Your task to perform on an android device: Search for usb-c on costco.com, select the first entry, add it to the cart, then select checkout. Image 0: 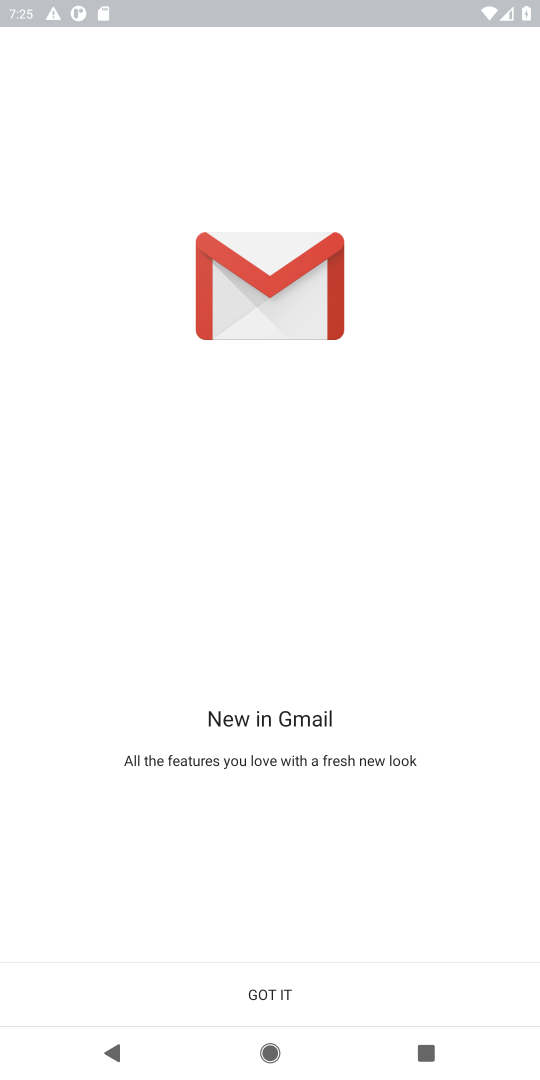
Step 0: press home button
Your task to perform on an android device: Search for usb-c on costco.com, select the first entry, add it to the cart, then select checkout. Image 1: 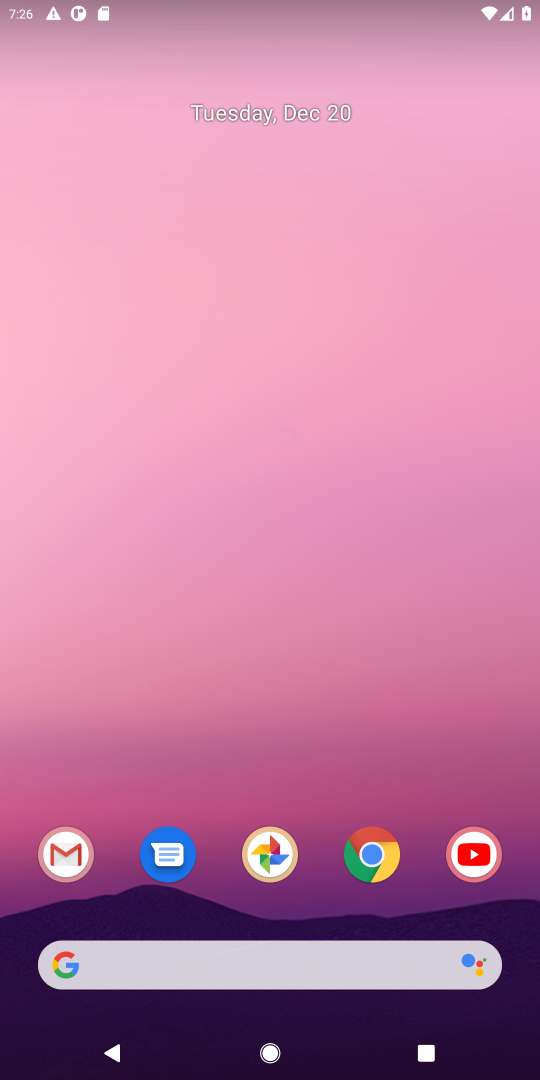
Step 1: click (378, 870)
Your task to perform on an android device: Search for usb-c on costco.com, select the first entry, add it to the cart, then select checkout. Image 2: 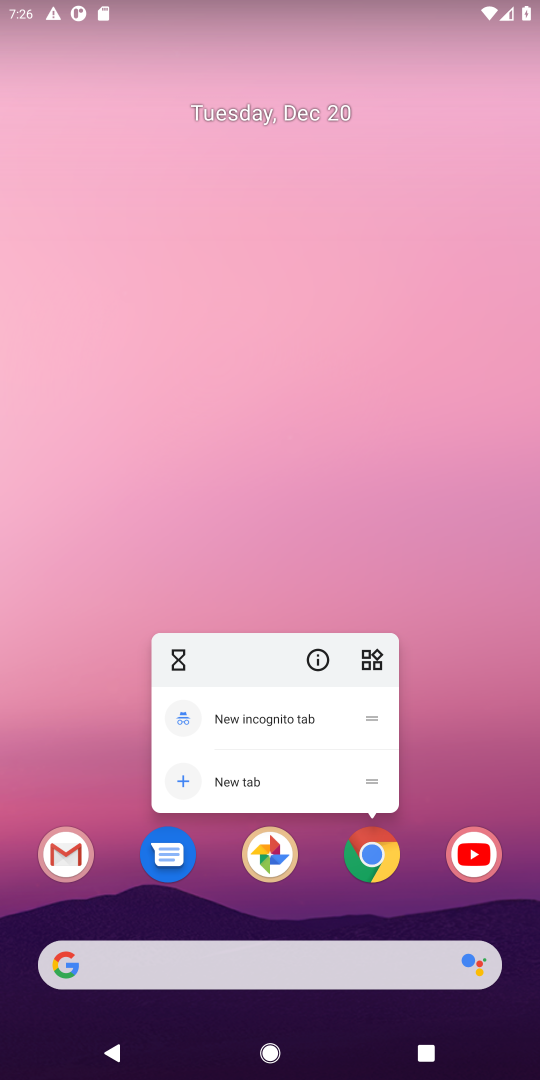
Step 2: click (372, 854)
Your task to perform on an android device: Search for usb-c on costco.com, select the first entry, add it to the cart, then select checkout. Image 3: 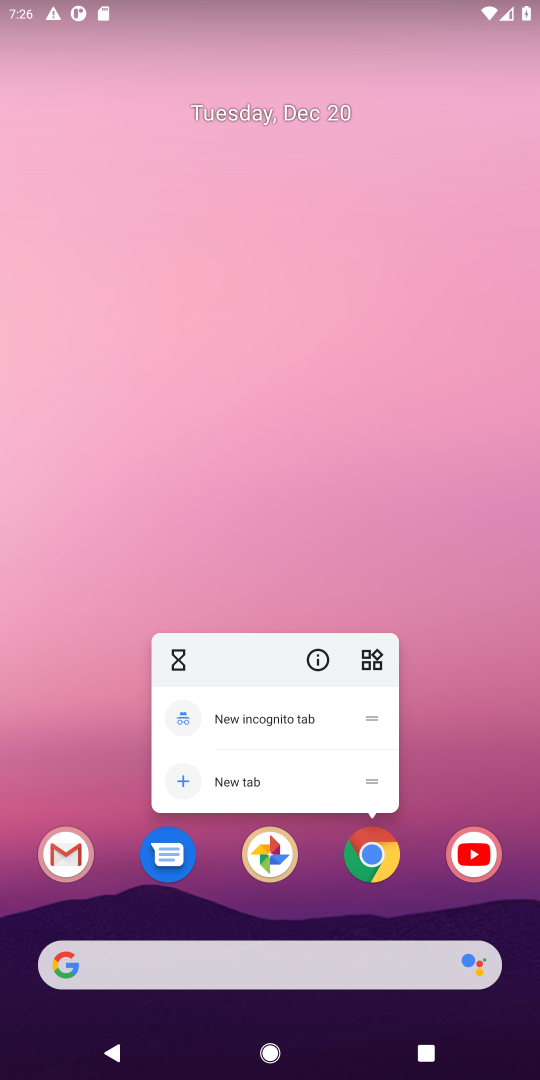
Step 3: click (377, 862)
Your task to perform on an android device: Search for usb-c on costco.com, select the first entry, add it to the cart, then select checkout. Image 4: 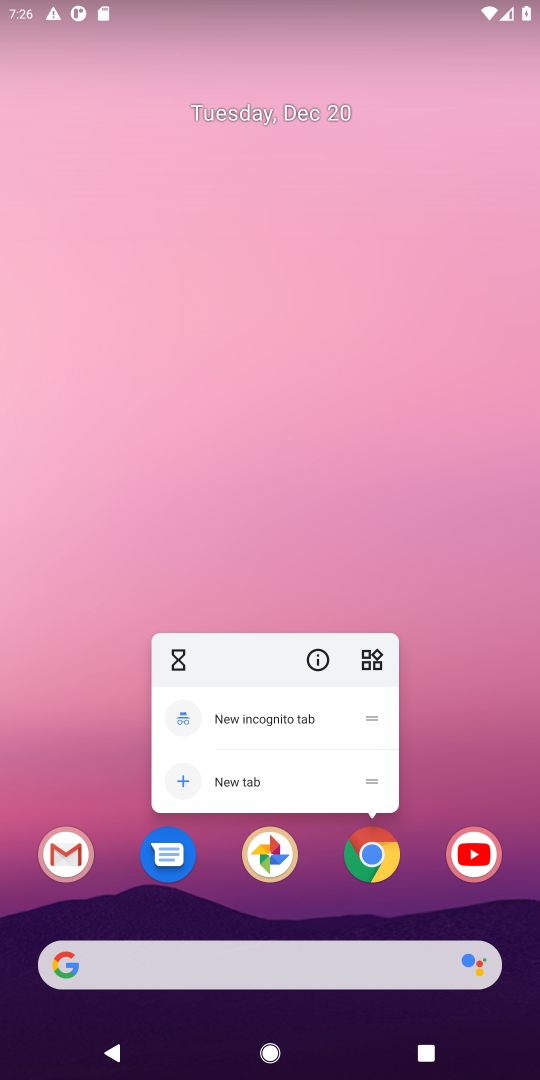
Step 4: click (377, 862)
Your task to perform on an android device: Search for usb-c on costco.com, select the first entry, add it to the cart, then select checkout. Image 5: 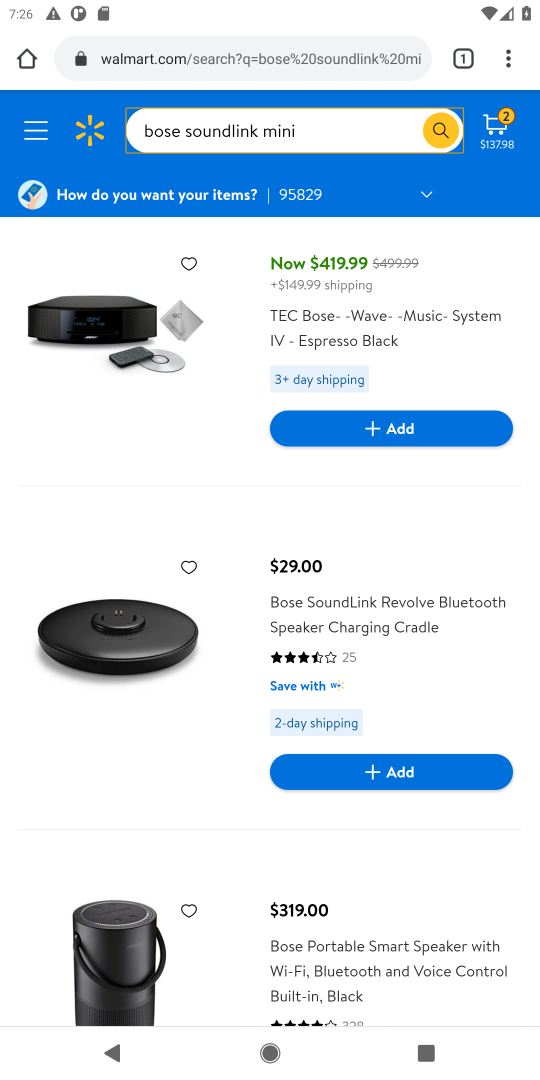
Step 5: click (185, 62)
Your task to perform on an android device: Search for usb-c on costco.com, select the first entry, add it to the cart, then select checkout. Image 6: 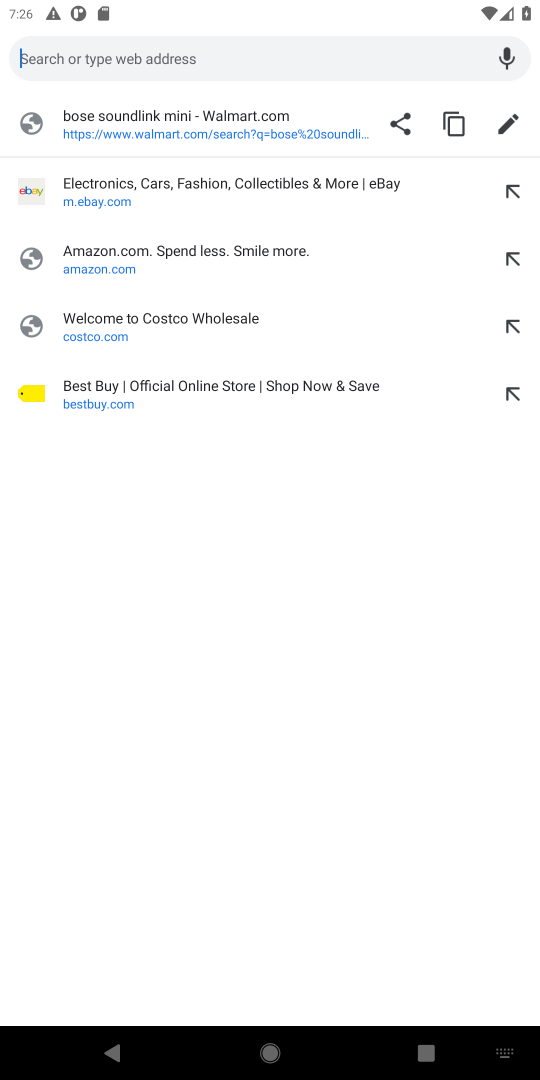
Step 6: click (86, 328)
Your task to perform on an android device: Search for usb-c on costco.com, select the first entry, add it to the cart, then select checkout. Image 7: 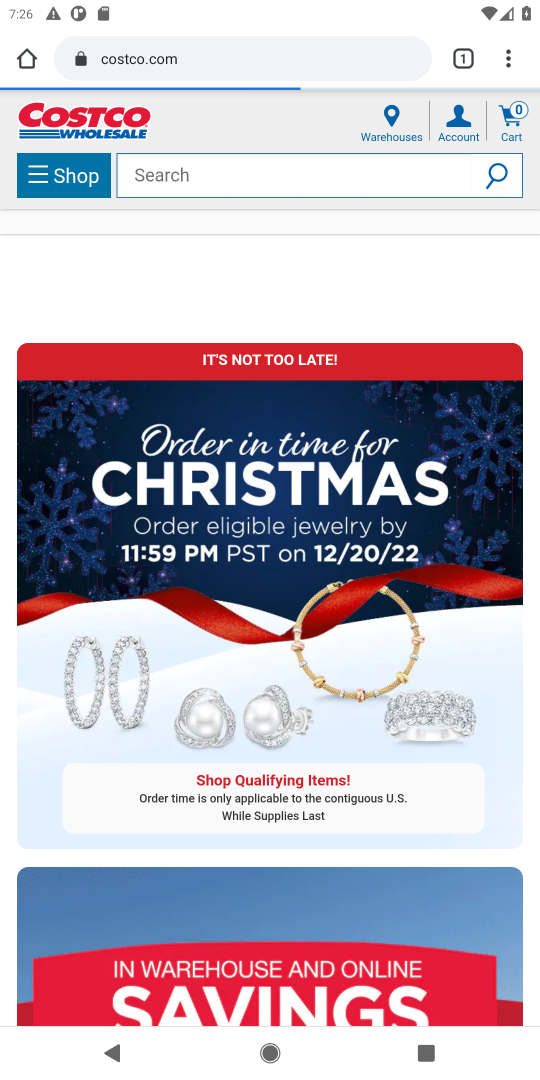
Step 7: click (181, 181)
Your task to perform on an android device: Search for usb-c on costco.com, select the first entry, add it to the cart, then select checkout. Image 8: 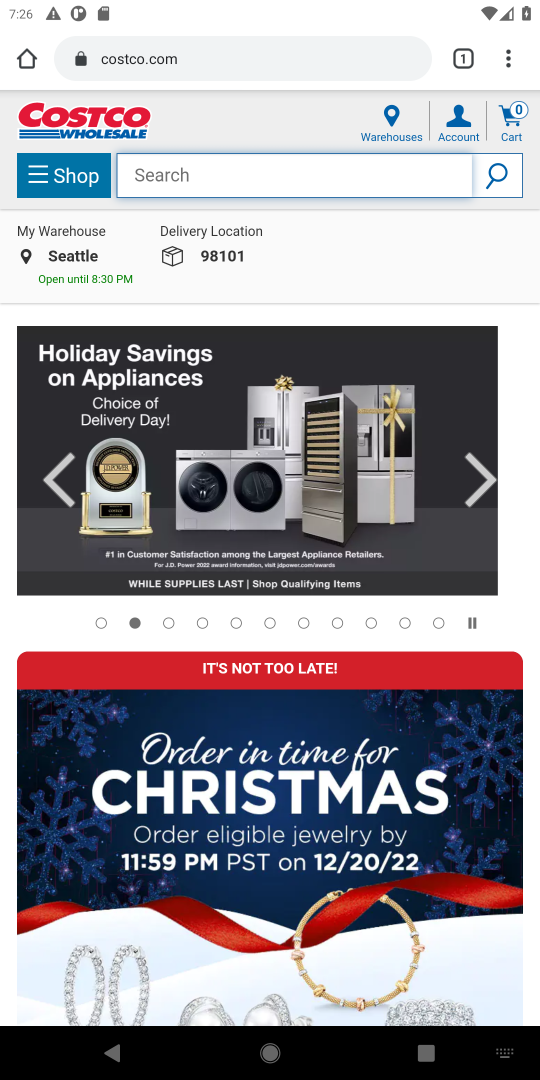
Step 8: type "usb-c"
Your task to perform on an android device: Search for usb-c on costco.com, select the first entry, add it to the cart, then select checkout. Image 9: 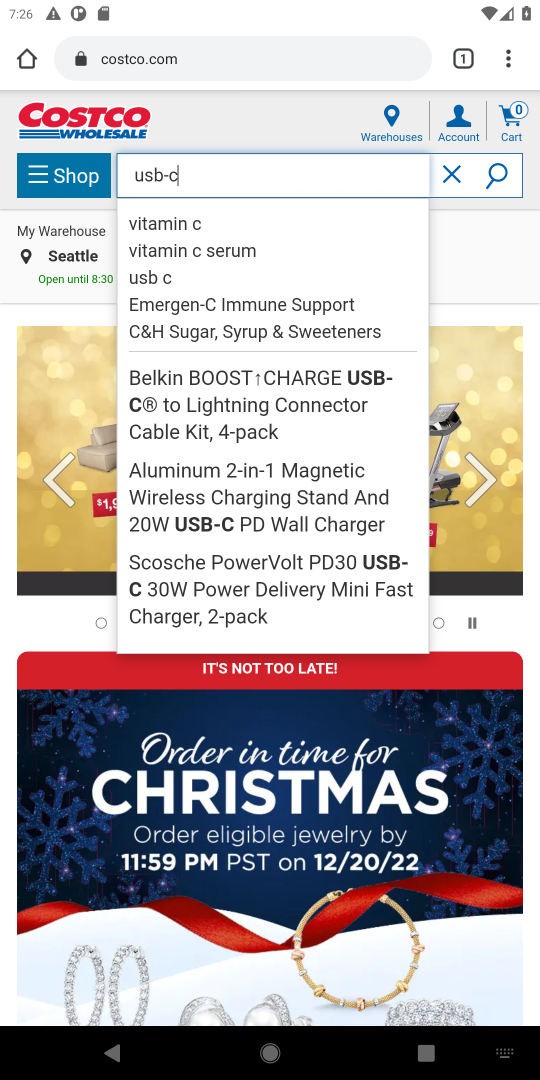
Step 9: click (502, 183)
Your task to perform on an android device: Search for usb-c on costco.com, select the first entry, add it to the cart, then select checkout. Image 10: 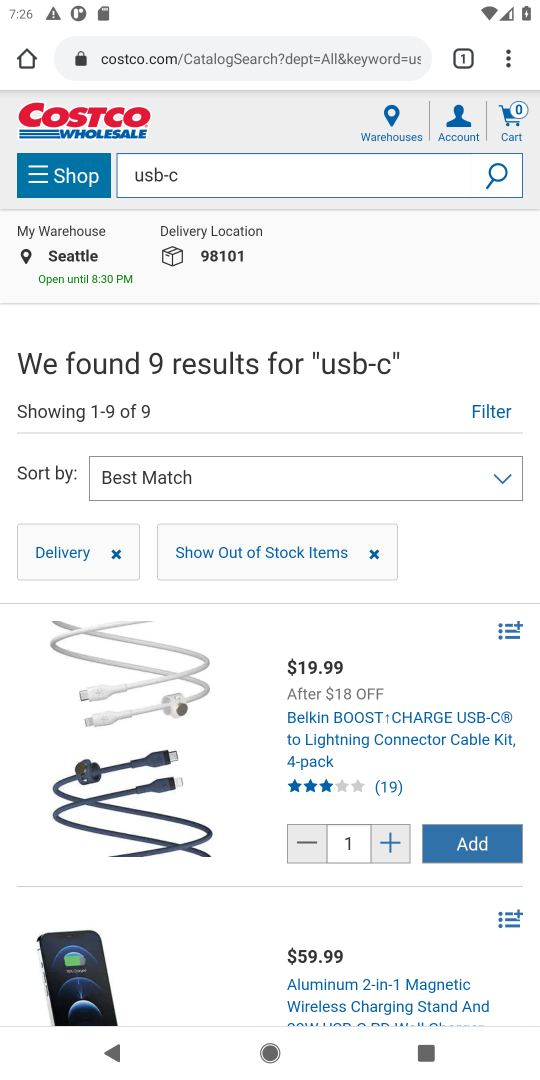
Step 10: drag from (169, 677) to (169, 437)
Your task to perform on an android device: Search for usb-c on costco.com, select the first entry, add it to the cart, then select checkout. Image 11: 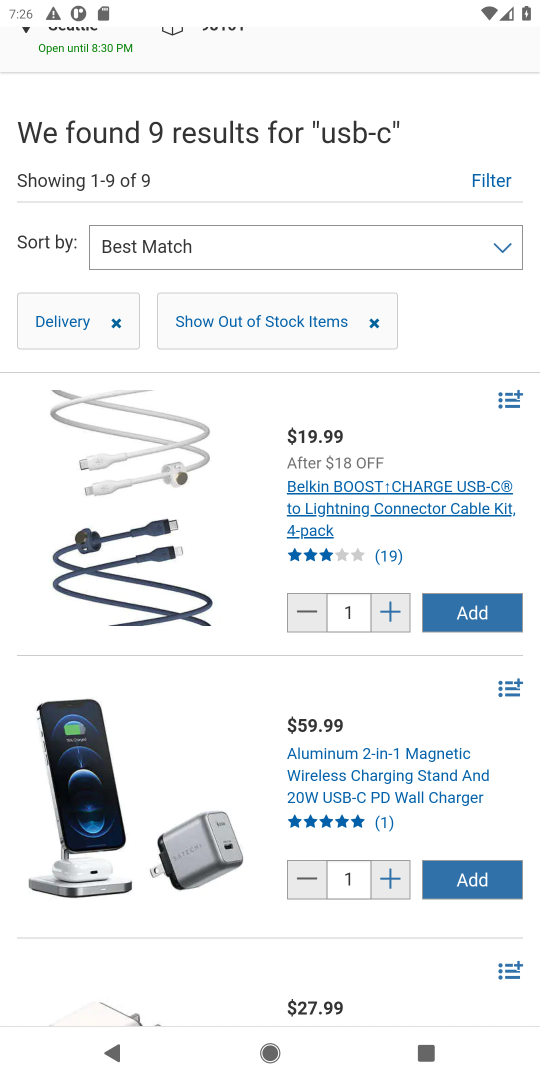
Step 11: click (485, 611)
Your task to perform on an android device: Search for usb-c on costco.com, select the first entry, add it to the cart, then select checkout. Image 12: 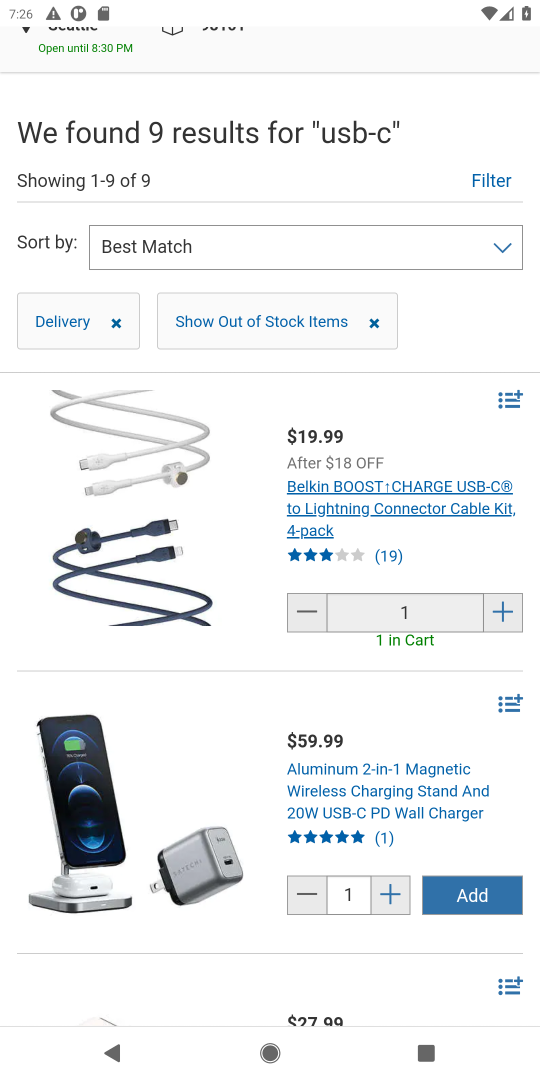
Step 12: drag from (398, 211) to (373, 535)
Your task to perform on an android device: Search for usb-c on costco.com, select the first entry, add it to the cart, then select checkout. Image 13: 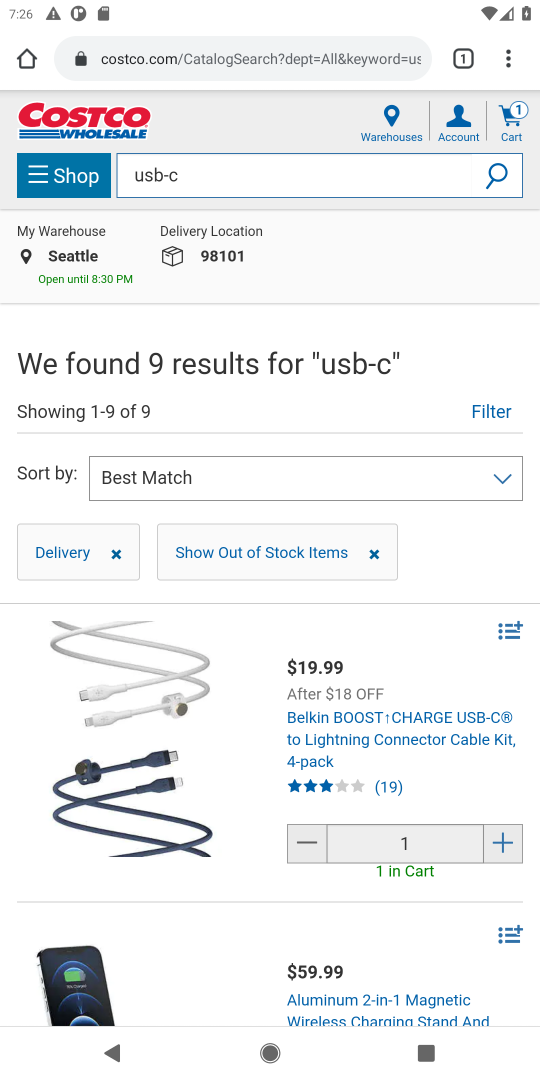
Step 13: click (513, 131)
Your task to perform on an android device: Search for usb-c on costco.com, select the first entry, add it to the cart, then select checkout. Image 14: 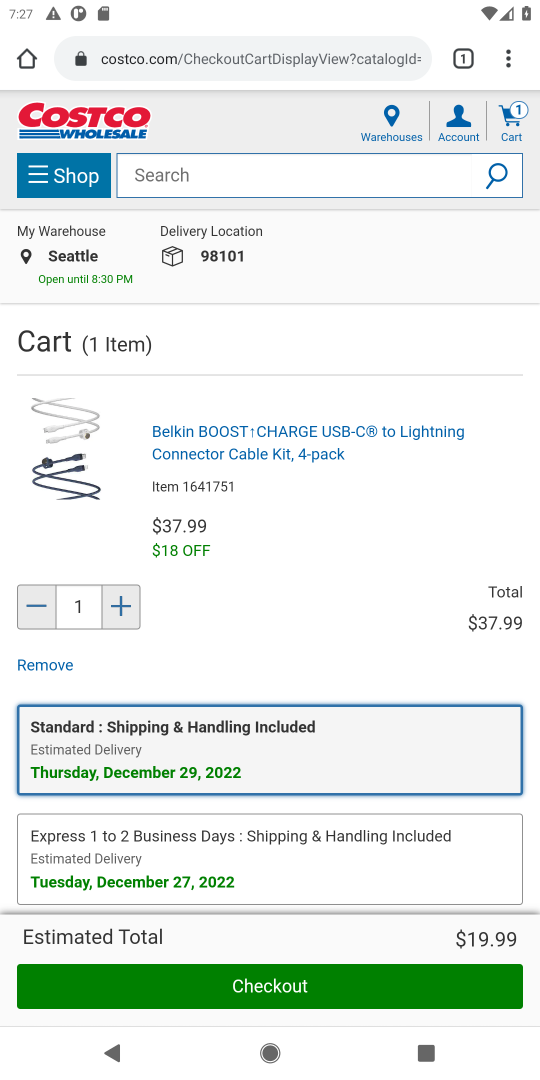
Step 14: click (230, 991)
Your task to perform on an android device: Search for usb-c on costco.com, select the first entry, add it to the cart, then select checkout. Image 15: 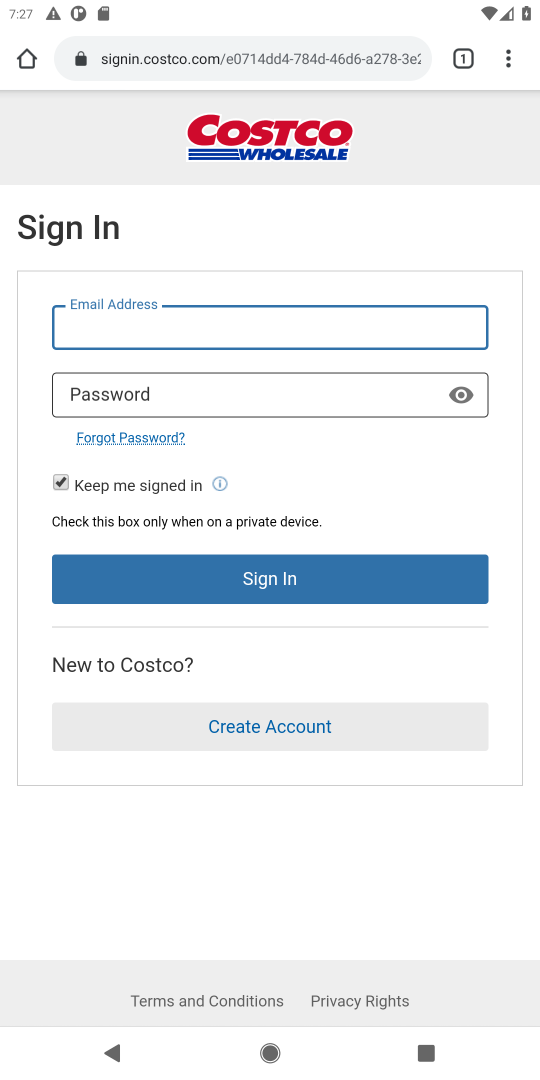
Step 15: task complete